Your task to perform on an android device: What's on my calendar today? Image 0: 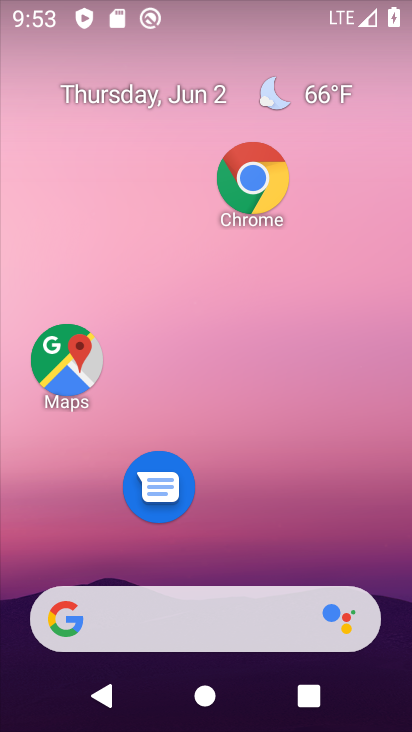
Step 0: drag from (235, 726) to (236, 95)
Your task to perform on an android device: What's on my calendar today? Image 1: 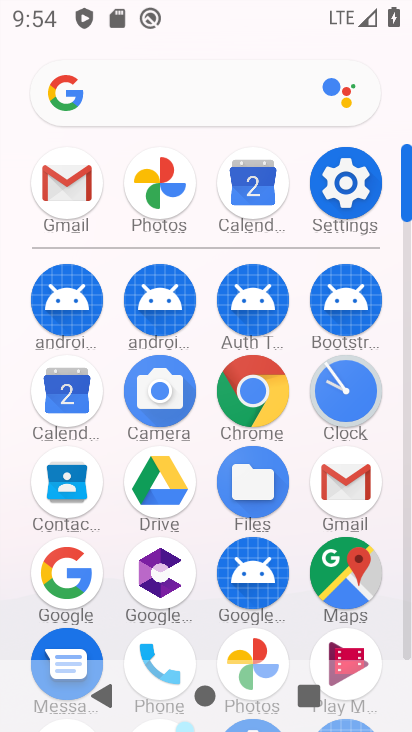
Step 1: click (62, 401)
Your task to perform on an android device: What's on my calendar today? Image 2: 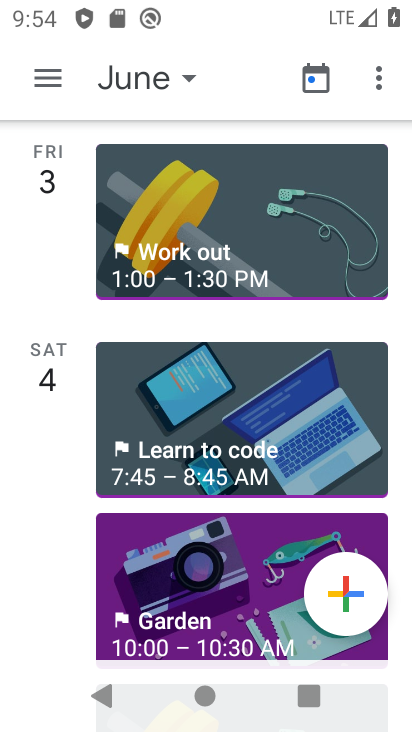
Step 2: click (190, 77)
Your task to perform on an android device: What's on my calendar today? Image 3: 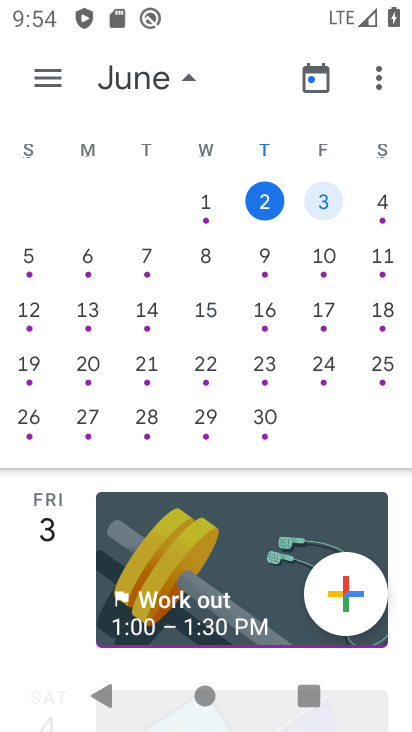
Step 3: click (324, 204)
Your task to perform on an android device: What's on my calendar today? Image 4: 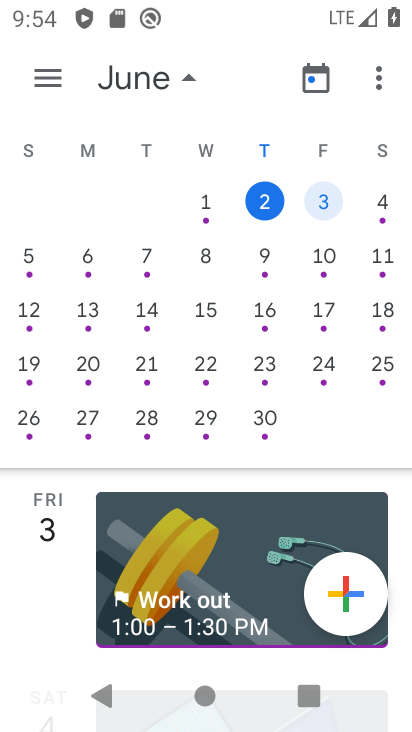
Step 4: click (261, 203)
Your task to perform on an android device: What's on my calendar today? Image 5: 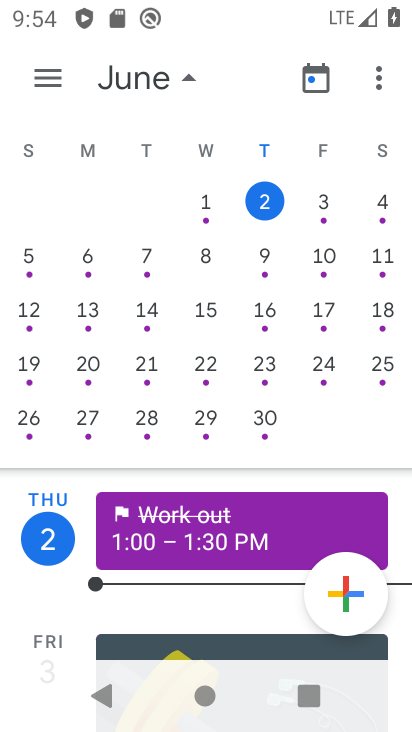
Step 5: click (261, 203)
Your task to perform on an android device: What's on my calendar today? Image 6: 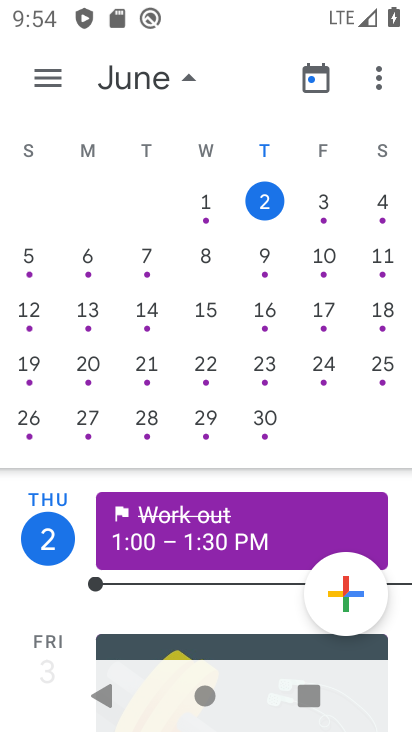
Step 6: click (261, 203)
Your task to perform on an android device: What's on my calendar today? Image 7: 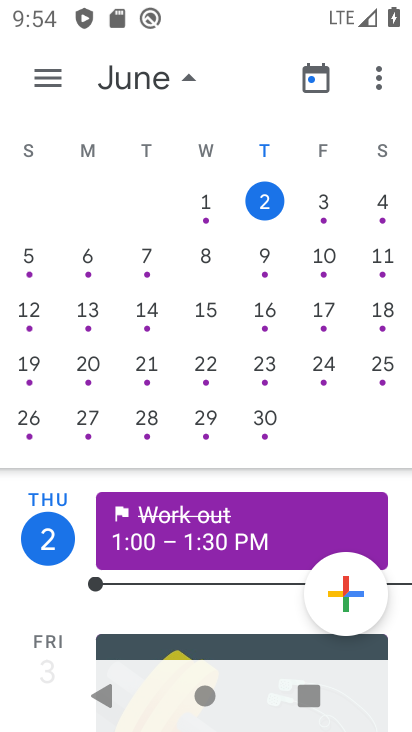
Step 7: click (190, 79)
Your task to perform on an android device: What's on my calendar today? Image 8: 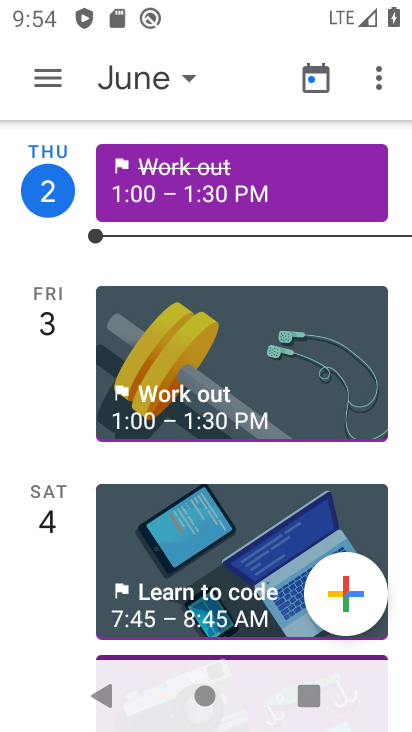
Step 8: click (37, 183)
Your task to perform on an android device: What's on my calendar today? Image 9: 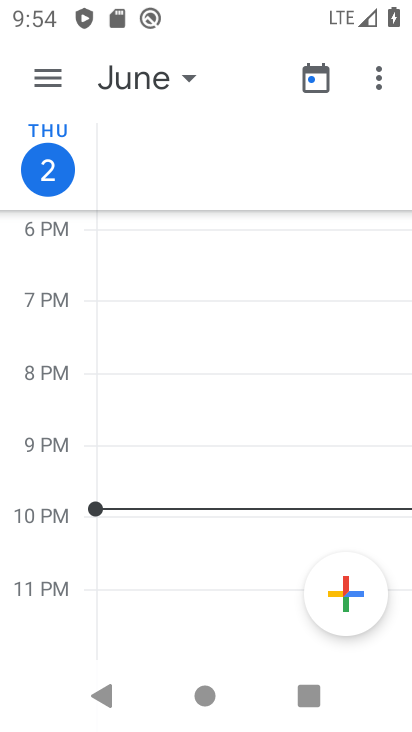
Step 9: task complete